Your task to perform on an android device: search for 2021 honda civic Image 0: 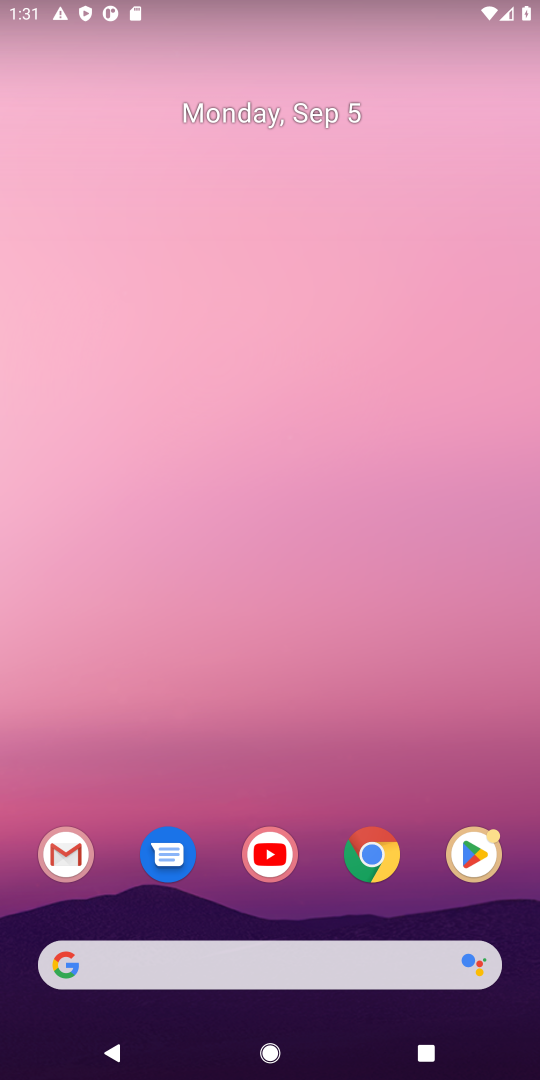
Step 0: click (307, 964)
Your task to perform on an android device: search for 2021 honda civic Image 1: 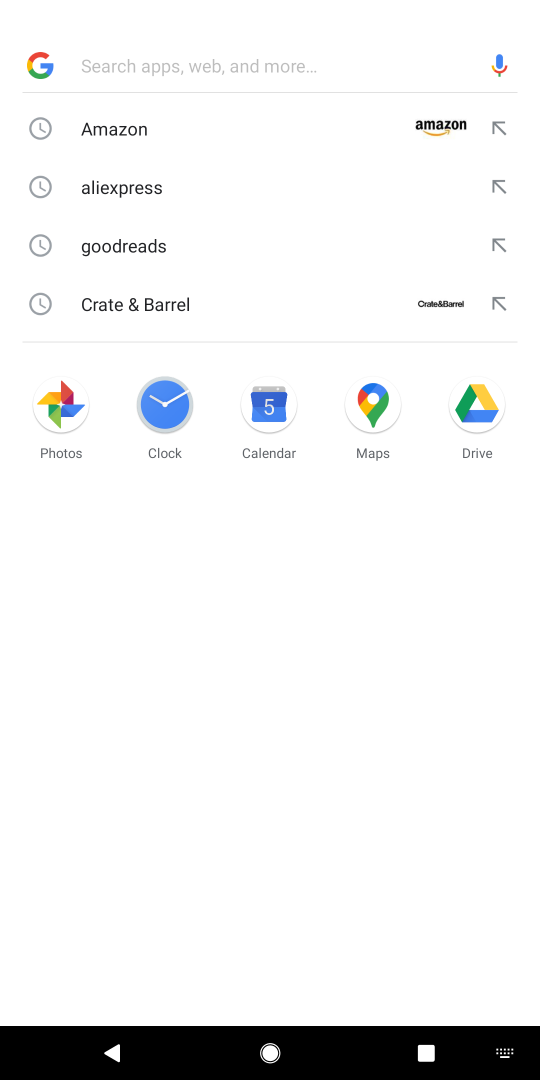
Step 1: press enter
Your task to perform on an android device: search for 2021 honda civic Image 2: 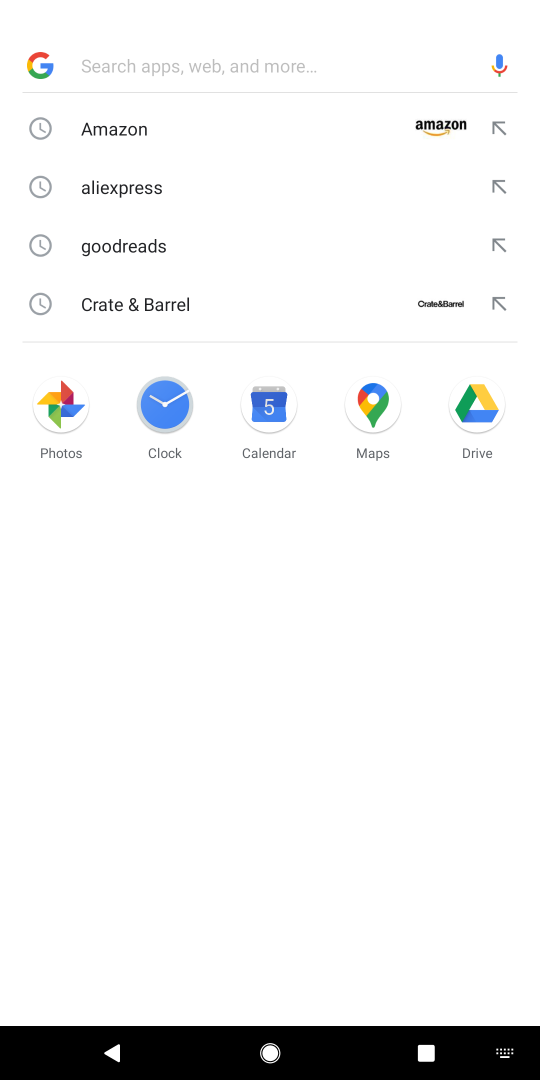
Step 2: type "2021 honda civic"
Your task to perform on an android device: search for 2021 honda civic Image 3: 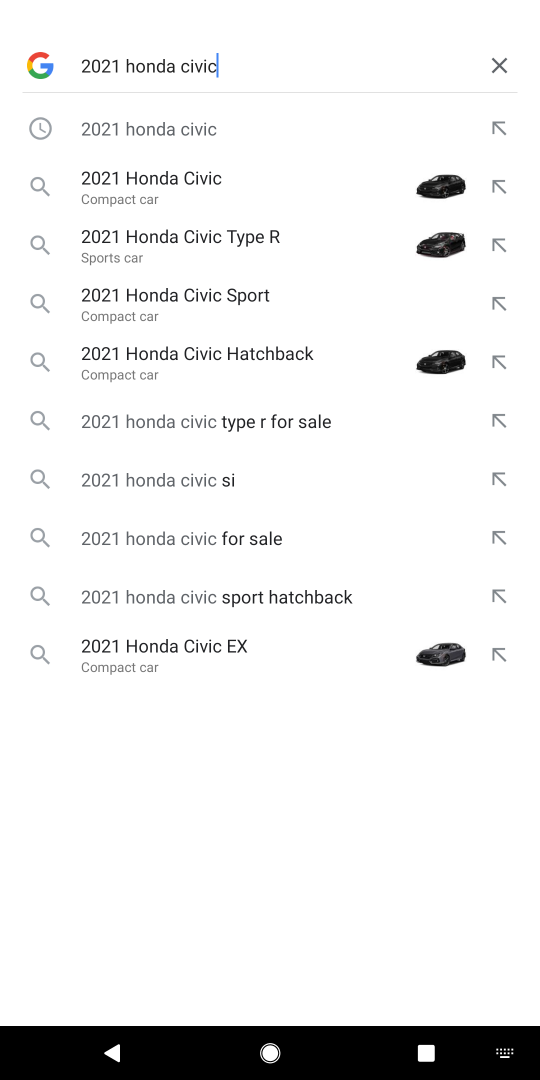
Step 3: click (275, 129)
Your task to perform on an android device: search for 2021 honda civic Image 4: 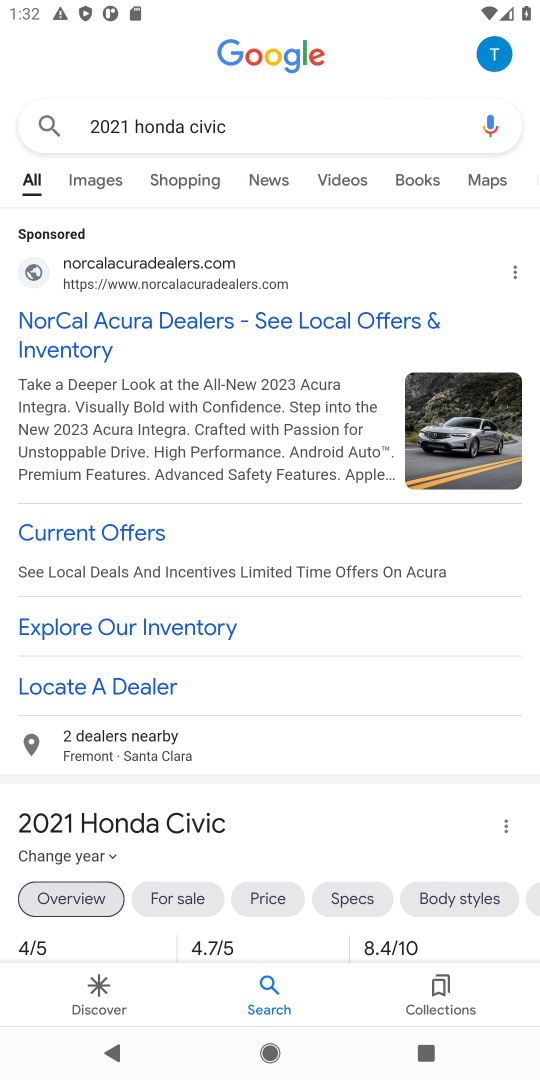
Step 4: task complete